Your task to perform on an android device: turn pop-ups off in chrome Image 0: 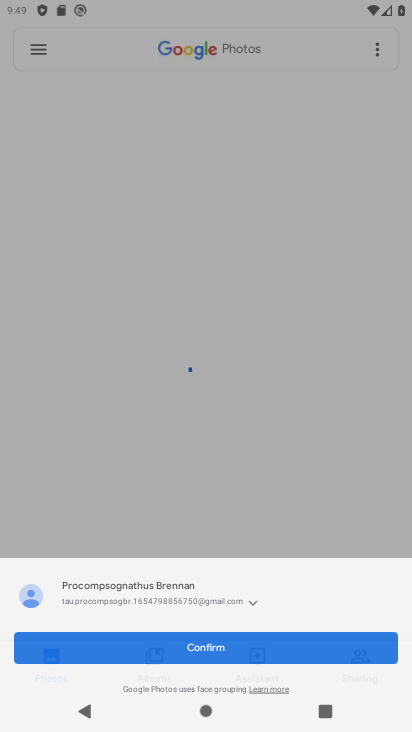
Step 0: press home button
Your task to perform on an android device: turn pop-ups off in chrome Image 1: 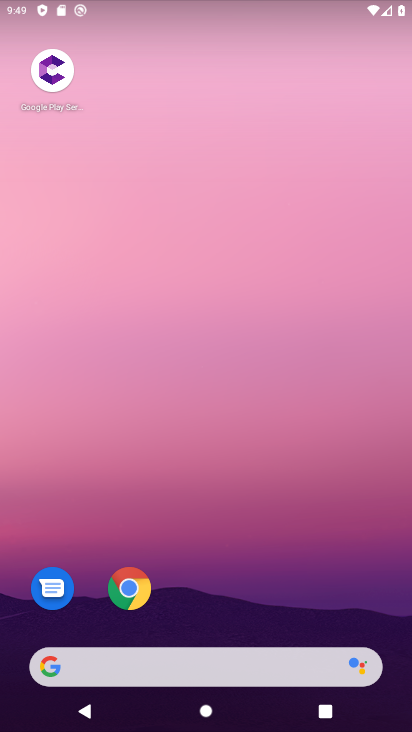
Step 1: drag from (207, 596) to (287, 8)
Your task to perform on an android device: turn pop-ups off in chrome Image 2: 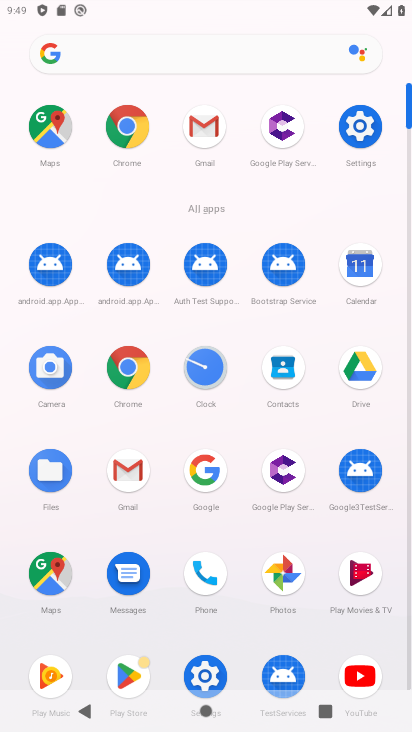
Step 2: click (132, 365)
Your task to perform on an android device: turn pop-ups off in chrome Image 3: 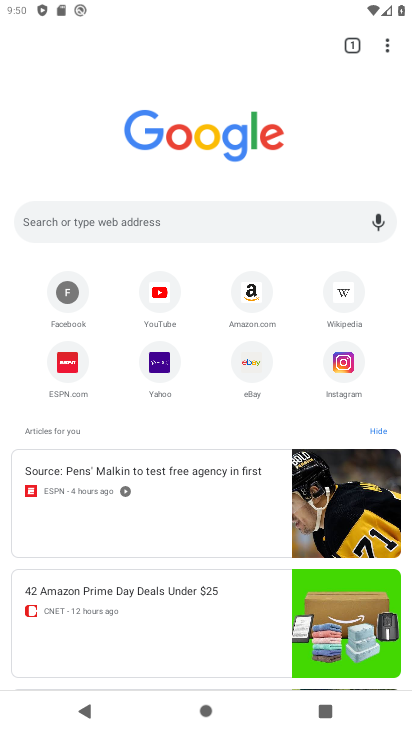
Step 3: click (383, 45)
Your task to perform on an android device: turn pop-ups off in chrome Image 4: 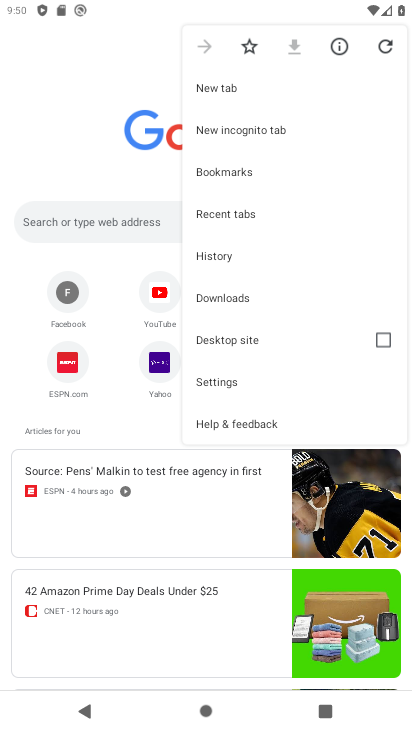
Step 4: click (241, 385)
Your task to perform on an android device: turn pop-ups off in chrome Image 5: 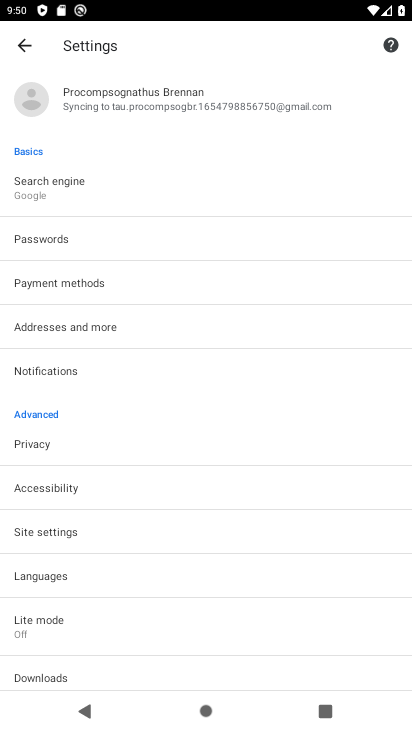
Step 5: click (69, 531)
Your task to perform on an android device: turn pop-ups off in chrome Image 6: 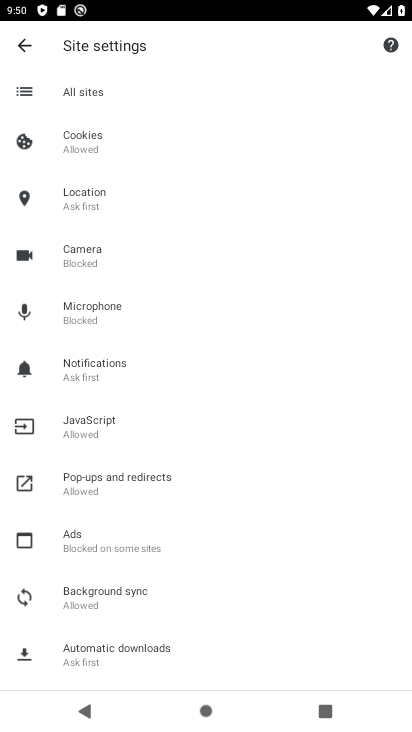
Step 6: click (125, 476)
Your task to perform on an android device: turn pop-ups off in chrome Image 7: 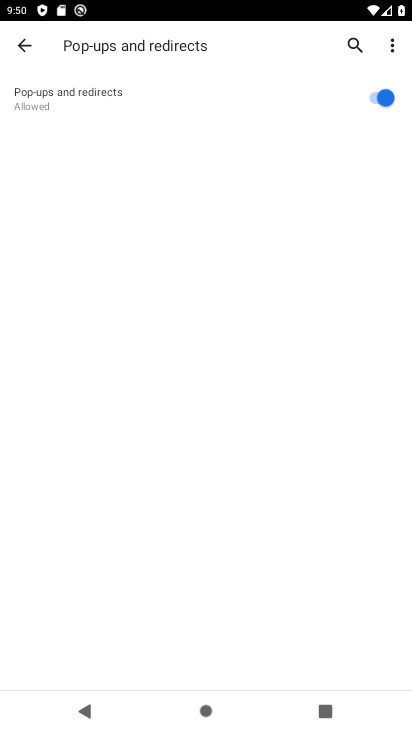
Step 7: click (365, 99)
Your task to perform on an android device: turn pop-ups off in chrome Image 8: 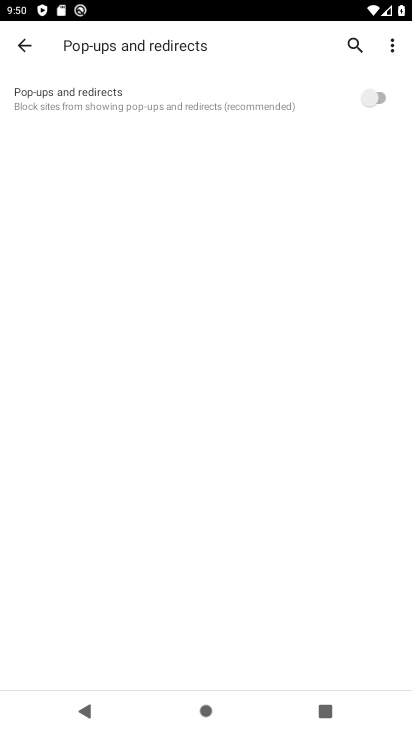
Step 8: task complete